Your task to perform on an android device: Open Youtube and go to the subscriptions tab Image 0: 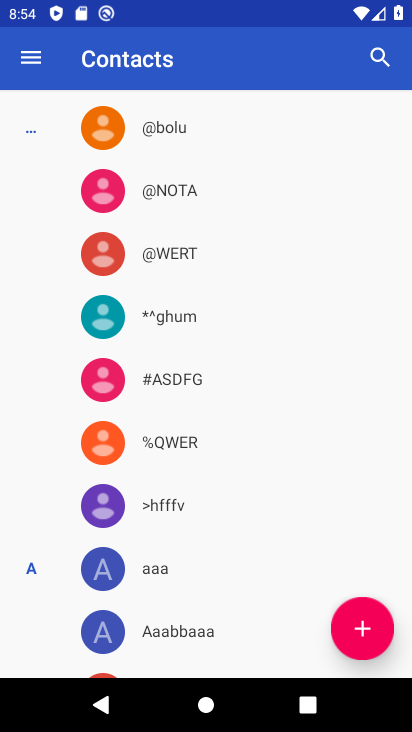
Step 0: press home button
Your task to perform on an android device: Open Youtube and go to the subscriptions tab Image 1: 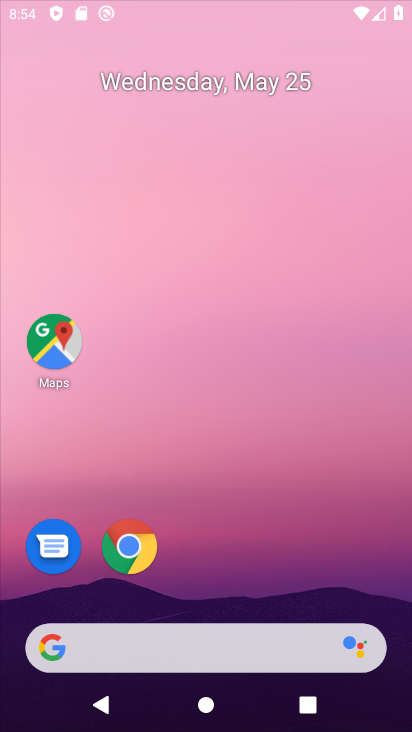
Step 1: drag from (227, 585) to (261, 295)
Your task to perform on an android device: Open Youtube and go to the subscriptions tab Image 2: 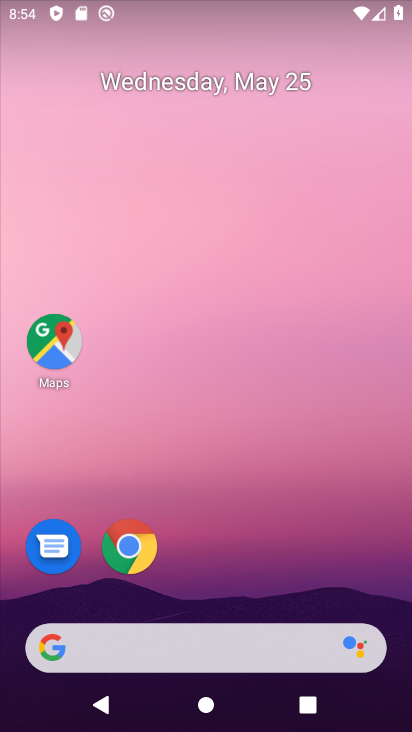
Step 2: drag from (281, 581) to (278, 283)
Your task to perform on an android device: Open Youtube and go to the subscriptions tab Image 3: 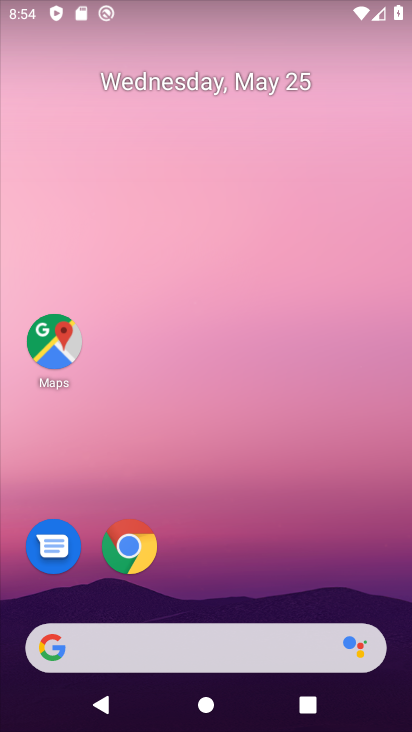
Step 3: drag from (247, 620) to (247, 274)
Your task to perform on an android device: Open Youtube and go to the subscriptions tab Image 4: 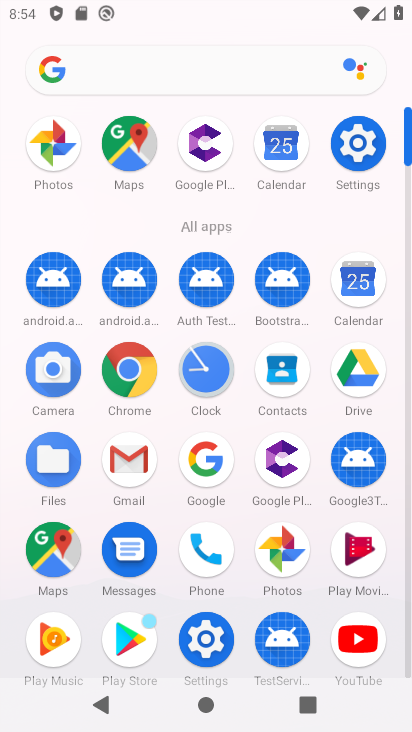
Step 4: drag from (272, 599) to (285, 324)
Your task to perform on an android device: Open Youtube and go to the subscriptions tab Image 5: 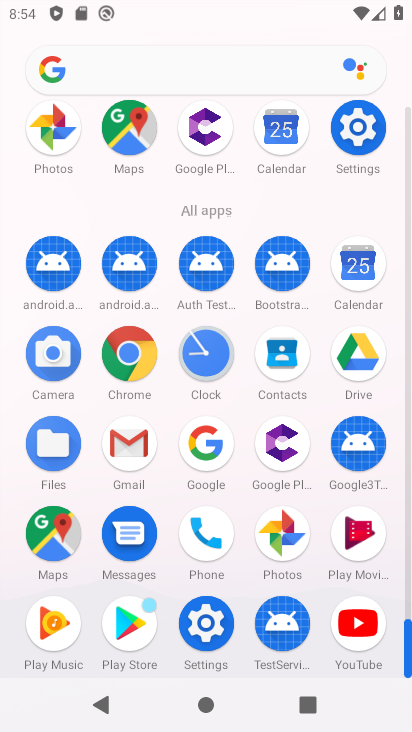
Step 5: click (359, 642)
Your task to perform on an android device: Open Youtube and go to the subscriptions tab Image 6: 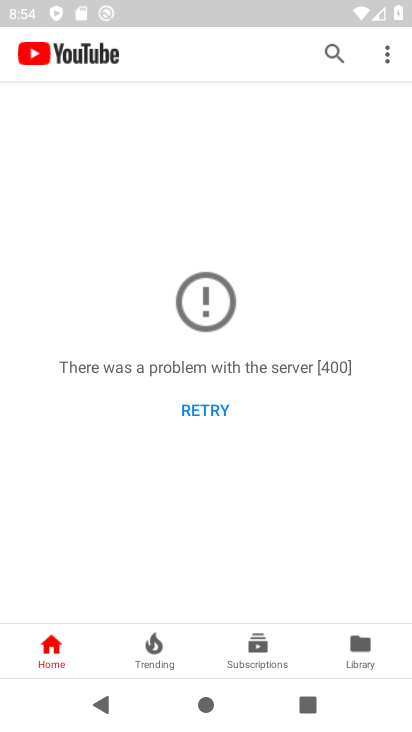
Step 6: click (239, 650)
Your task to perform on an android device: Open Youtube and go to the subscriptions tab Image 7: 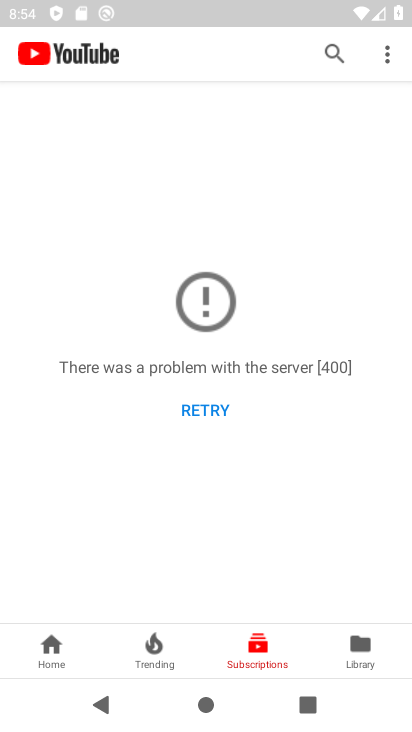
Step 7: task complete